Your task to perform on an android device: Open my contact list Image 0: 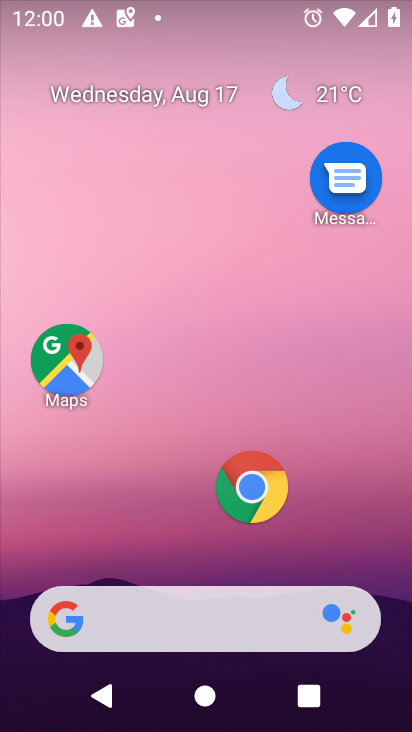
Step 0: drag from (133, 508) to (239, 0)
Your task to perform on an android device: Open my contact list Image 1: 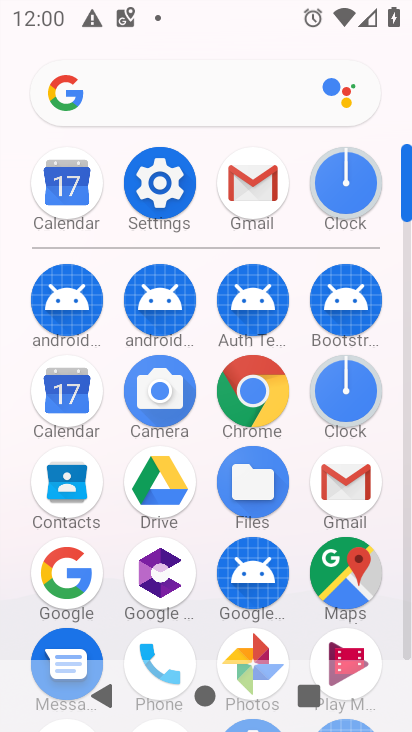
Step 1: click (64, 493)
Your task to perform on an android device: Open my contact list Image 2: 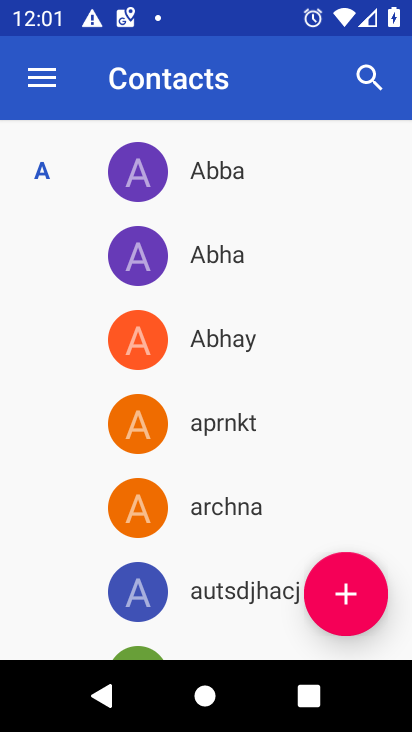
Step 2: task complete